Your task to perform on an android device: toggle notification dots Image 0: 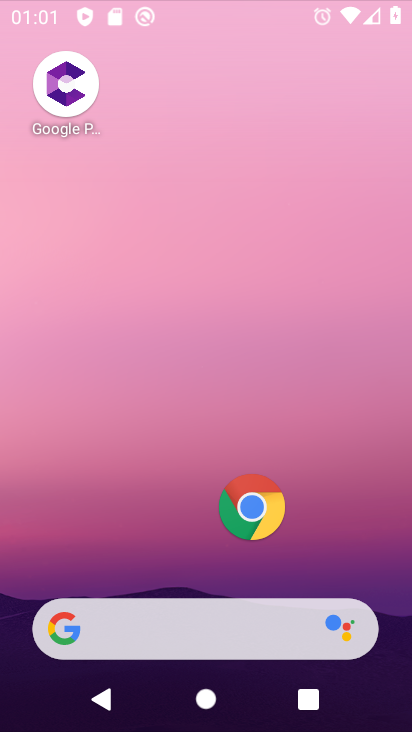
Step 0: click (202, 340)
Your task to perform on an android device: toggle notification dots Image 1: 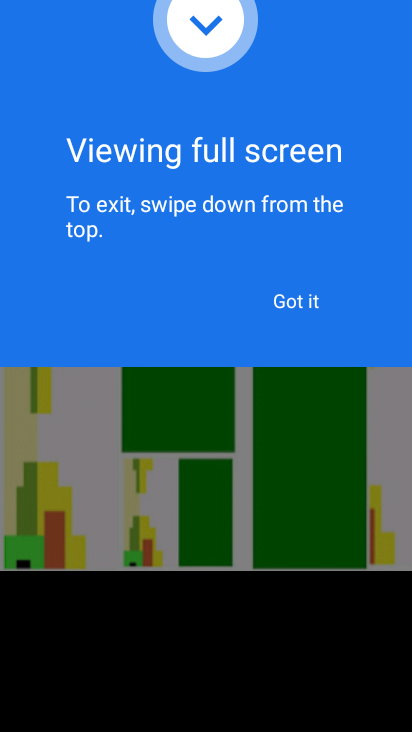
Step 1: press home button
Your task to perform on an android device: toggle notification dots Image 2: 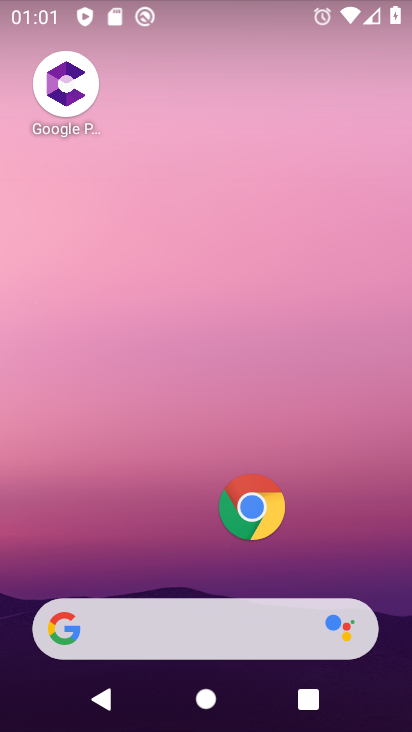
Step 2: drag from (318, 527) to (393, 121)
Your task to perform on an android device: toggle notification dots Image 3: 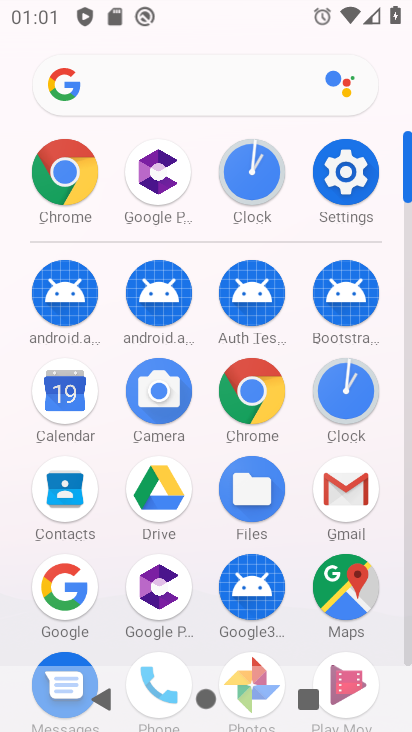
Step 3: click (339, 179)
Your task to perform on an android device: toggle notification dots Image 4: 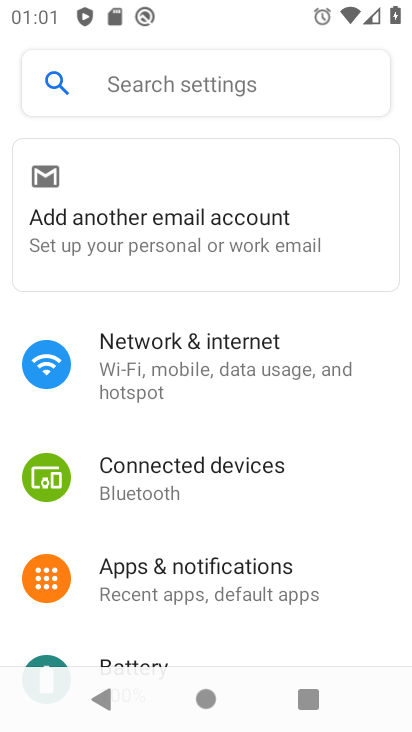
Step 4: click (183, 561)
Your task to perform on an android device: toggle notification dots Image 5: 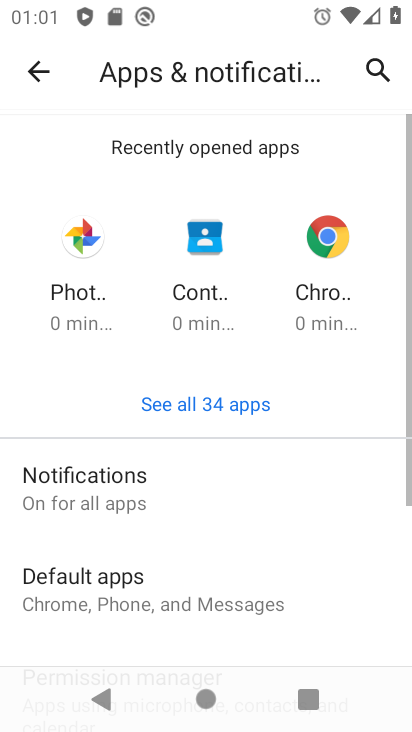
Step 5: click (133, 469)
Your task to perform on an android device: toggle notification dots Image 6: 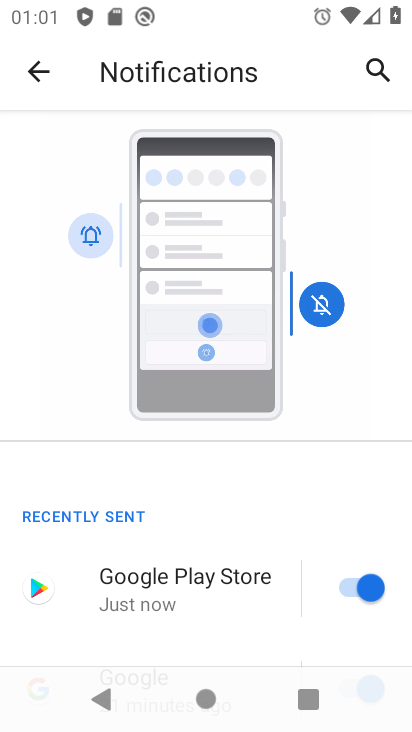
Step 6: drag from (51, 617) to (86, 376)
Your task to perform on an android device: toggle notification dots Image 7: 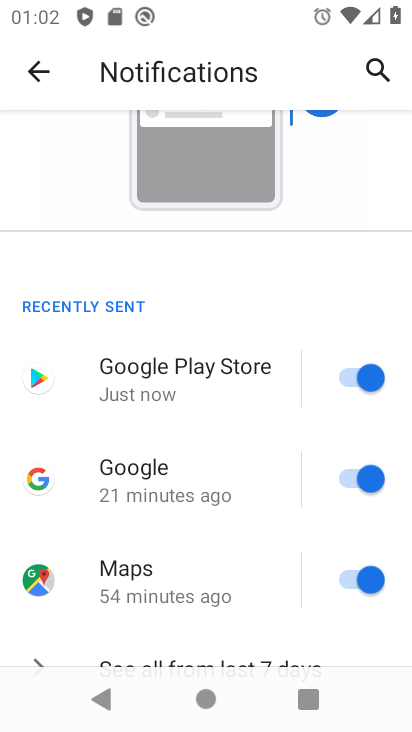
Step 7: drag from (157, 607) to (192, 318)
Your task to perform on an android device: toggle notification dots Image 8: 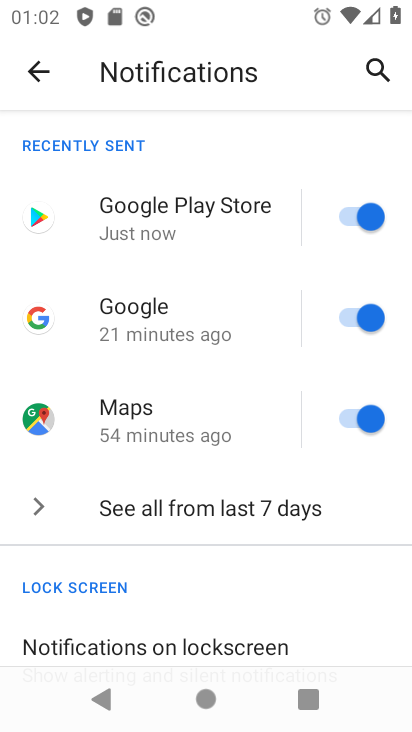
Step 8: drag from (185, 588) to (194, 309)
Your task to perform on an android device: toggle notification dots Image 9: 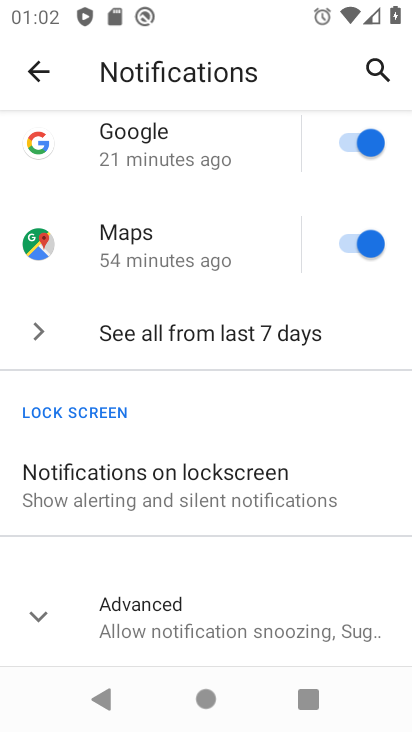
Step 9: click (199, 611)
Your task to perform on an android device: toggle notification dots Image 10: 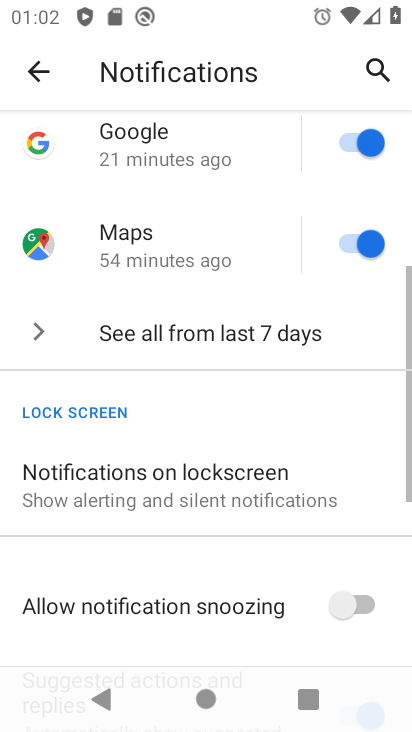
Step 10: drag from (201, 535) to (242, 399)
Your task to perform on an android device: toggle notification dots Image 11: 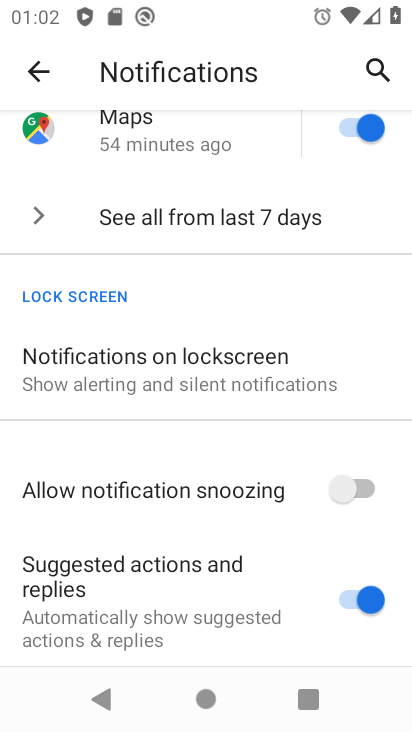
Step 11: drag from (166, 598) to (176, 265)
Your task to perform on an android device: toggle notification dots Image 12: 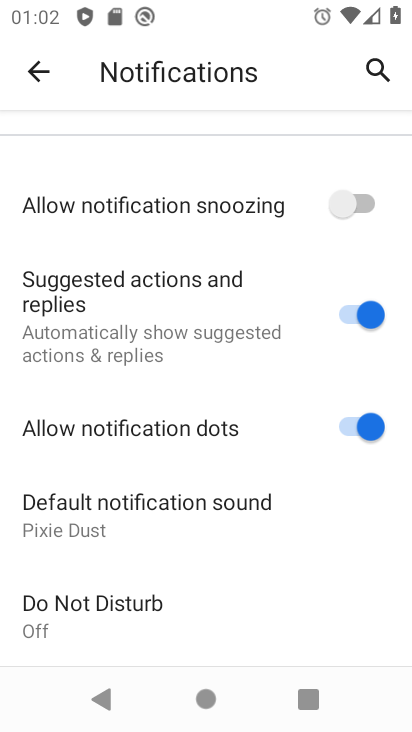
Step 12: drag from (114, 586) to (141, 350)
Your task to perform on an android device: toggle notification dots Image 13: 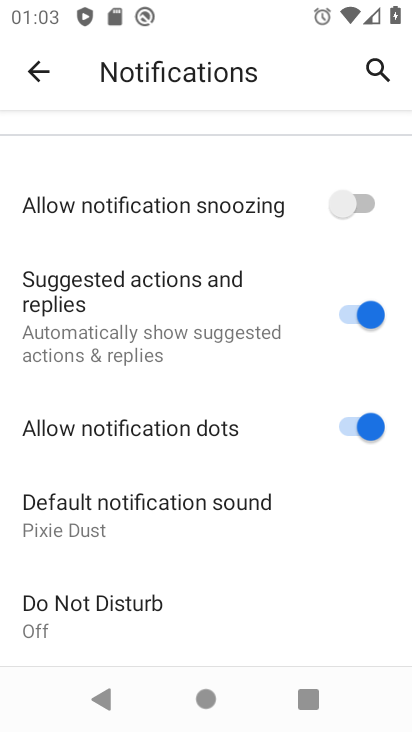
Step 13: drag from (102, 628) to (156, 382)
Your task to perform on an android device: toggle notification dots Image 14: 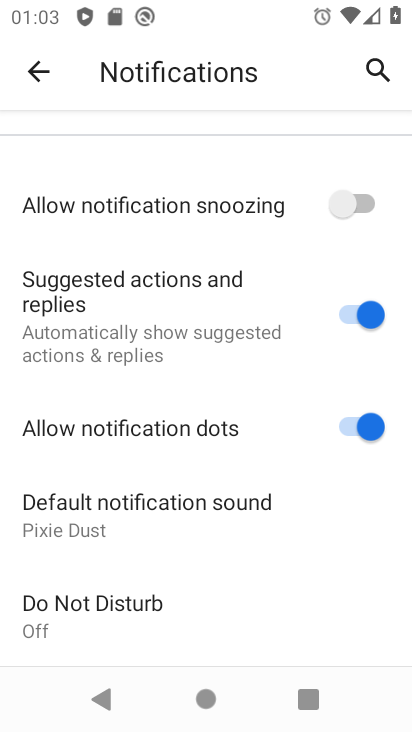
Step 14: click (366, 423)
Your task to perform on an android device: toggle notification dots Image 15: 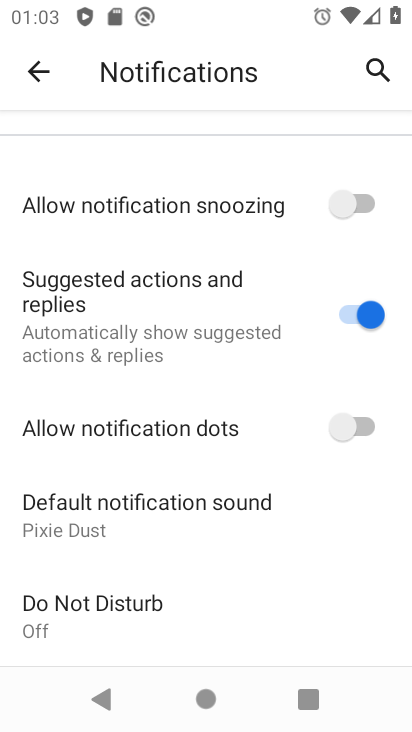
Step 15: task complete